Your task to perform on an android device: View the shopping cart on ebay.com. Search for "beats solo 3" on ebay.com, select the first entry, add it to the cart, then select checkout. Image 0: 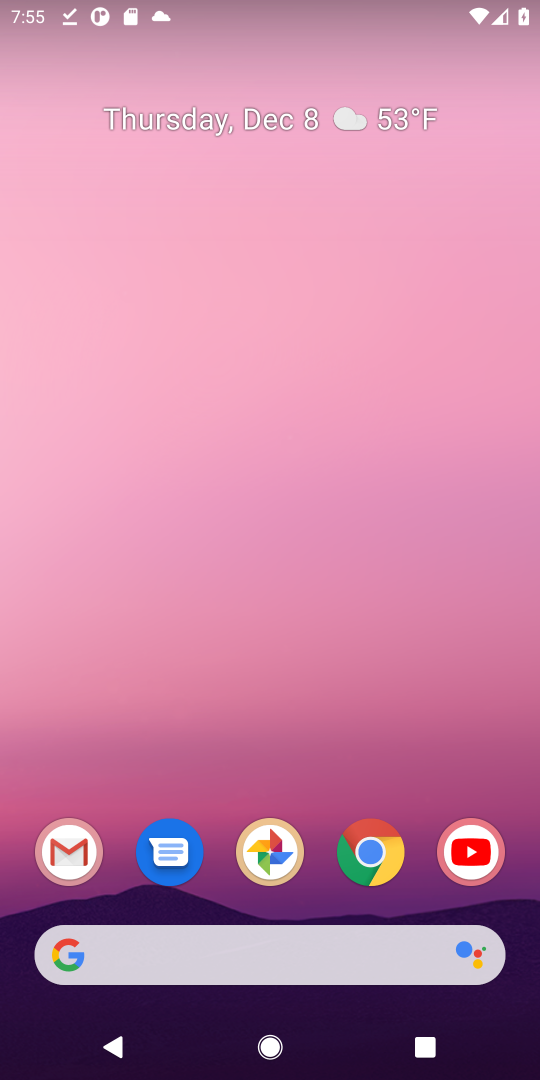
Step 0: click (356, 959)
Your task to perform on an android device: View the shopping cart on ebay.com. Search for "beats solo 3" on ebay.com, select the first entry, add it to the cart, then select checkout. Image 1: 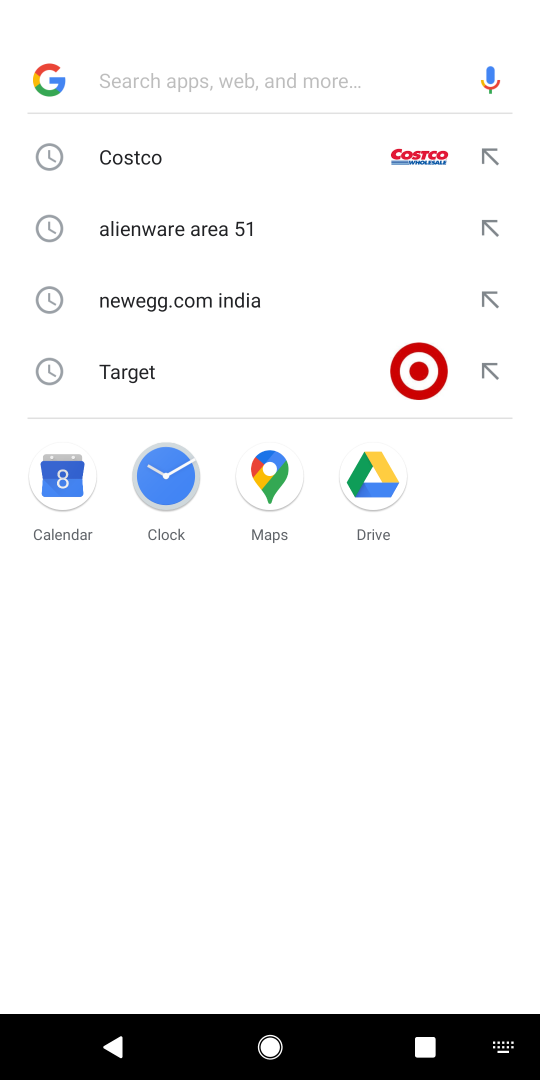
Step 1: type "ebay.com"
Your task to perform on an android device: View the shopping cart on ebay.com. Search for "beats solo 3" on ebay.com, select the first entry, add it to the cart, then select checkout. Image 2: 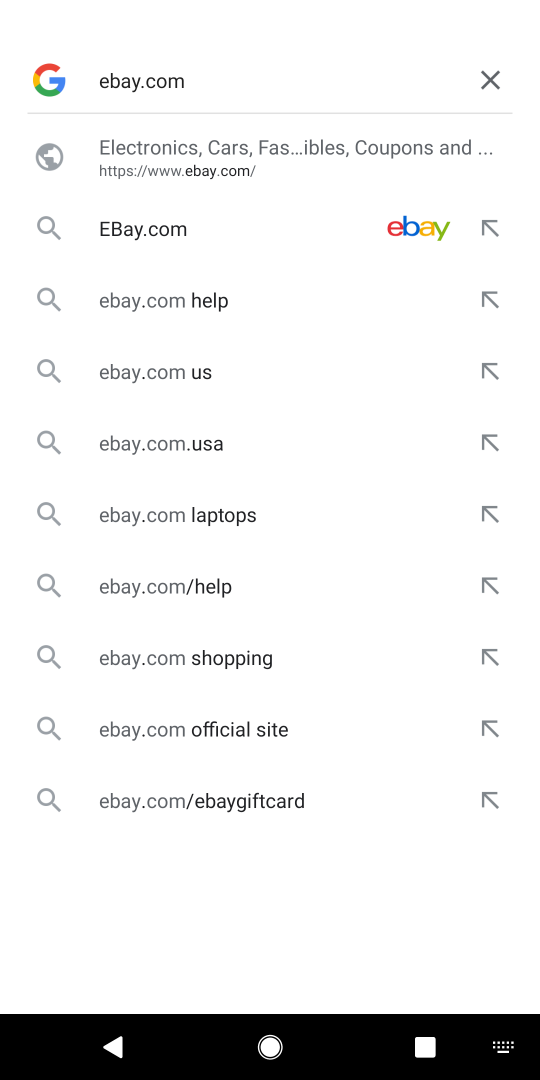
Step 2: click (226, 146)
Your task to perform on an android device: View the shopping cart on ebay.com. Search for "beats solo 3" on ebay.com, select the first entry, add it to the cart, then select checkout. Image 3: 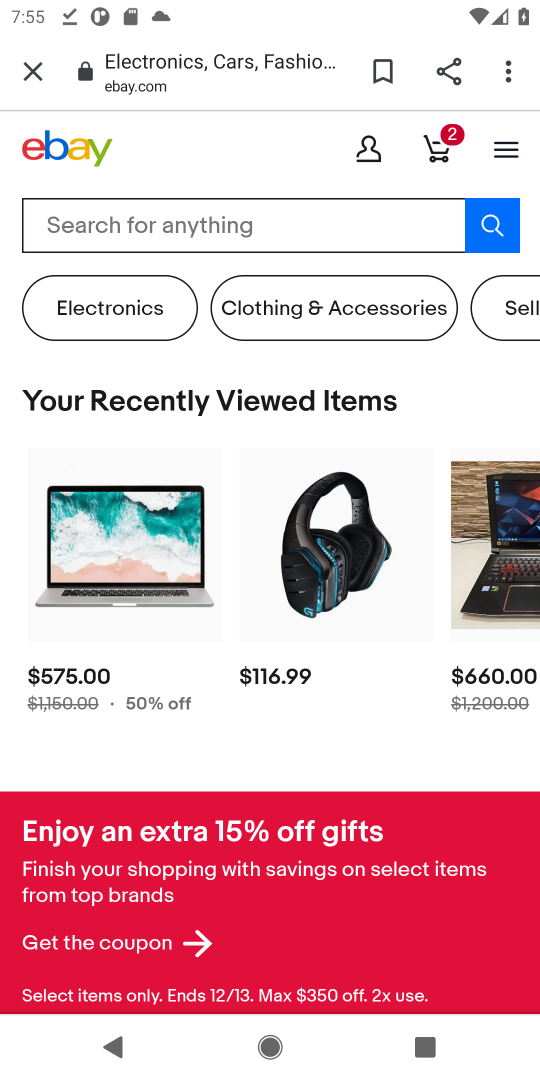
Step 3: click (297, 220)
Your task to perform on an android device: View the shopping cart on ebay.com. Search for "beats solo 3" on ebay.com, select the first entry, add it to the cart, then select checkout. Image 4: 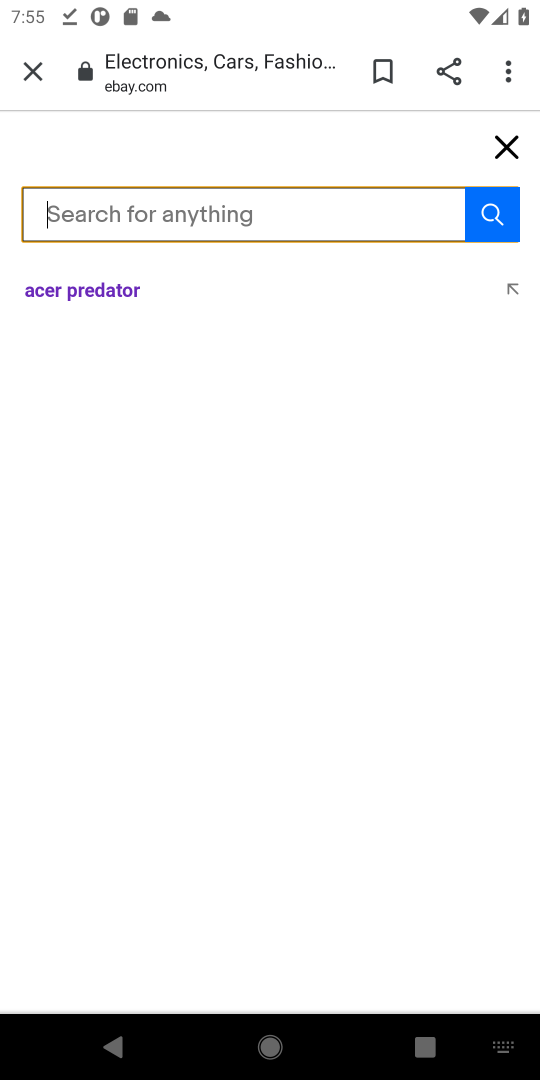
Step 4: type "beat solo 3"
Your task to perform on an android device: View the shopping cart on ebay.com. Search for "beats solo 3" on ebay.com, select the first entry, add it to the cart, then select checkout. Image 5: 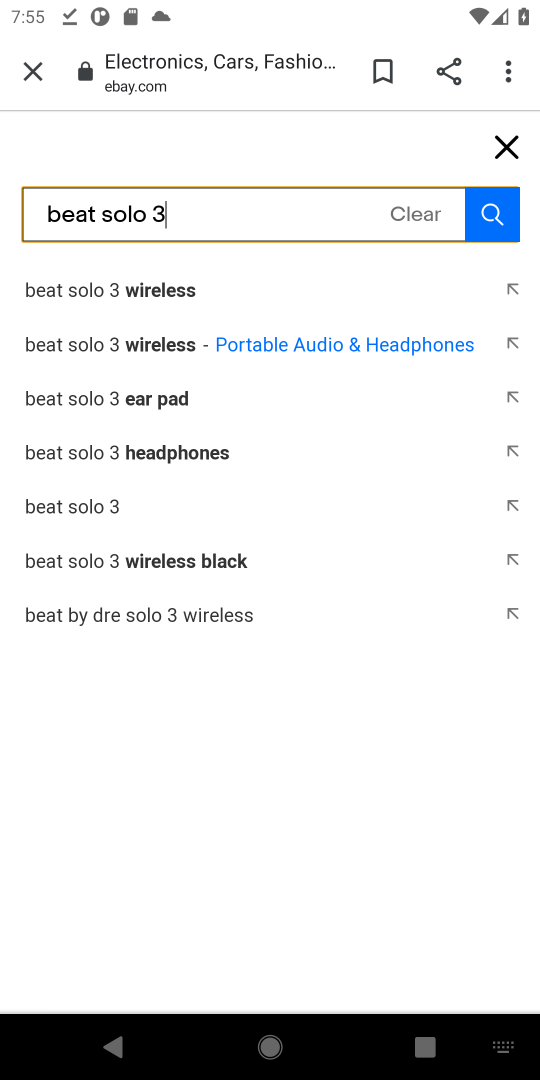
Step 5: click (496, 213)
Your task to perform on an android device: View the shopping cart on ebay.com. Search for "beats solo 3" on ebay.com, select the first entry, add it to the cart, then select checkout. Image 6: 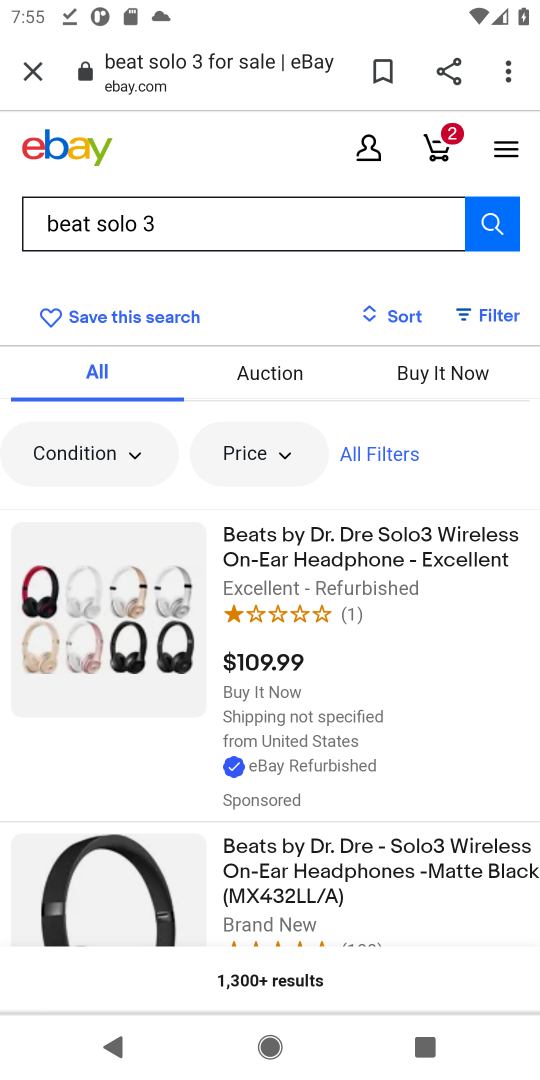
Step 6: click (330, 562)
Your task to perform on an android device: View the shopping cart on ebay.com. Search for "beats solo 3" on ebay.com, select the first entry, add it to the cart, then select checkout. Image 7: 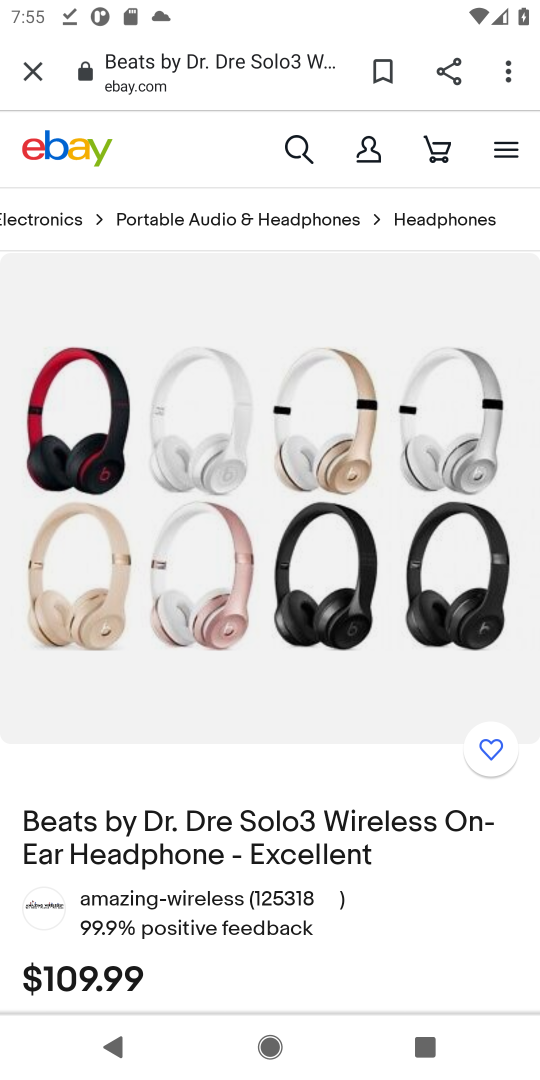
Step 7: drag from (402, 824) to (402, 361)
Your task to perform on an android device: View the shopping cart on ebay.com. Search for "beats solo 3" on ebay.com, select the first entry, add it to the cart, then select checkout. Image 8: 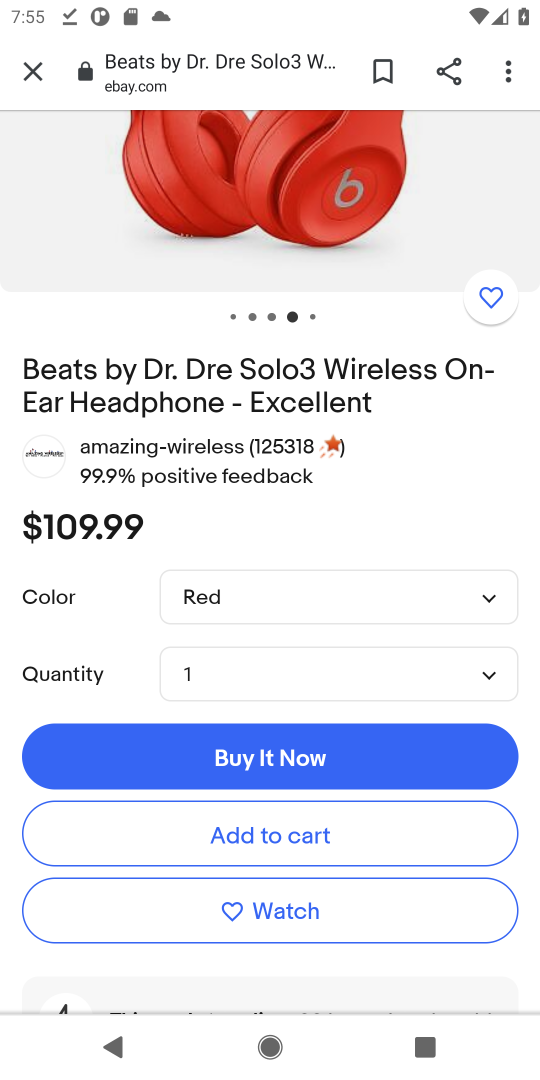
Step 8: drag from (408, 917) to (408, 798)
Your task to perform on an android device: View the shopping cart on ebay.com. Search for "beats solo 3" on ebay.com, select the first entry, add it to the cart, then select checkout. Image 9: 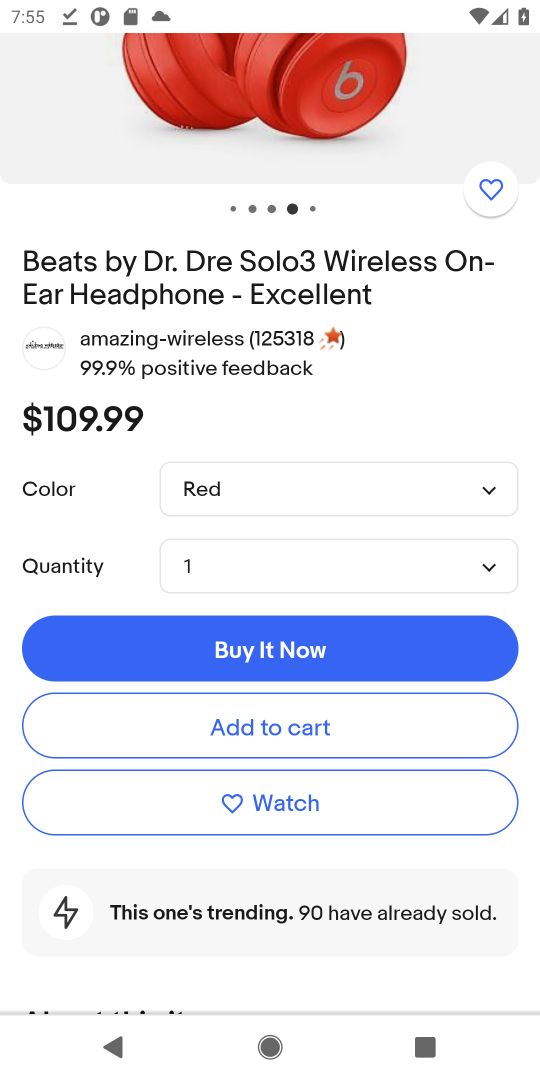
Step 9: click (320, 736)
Your task to perform on an android device: View the shopping cart on ebay.com. Search for "beats solo 3" on ebay.com, select the first entry, add it to the cart, then select checkout. Image 10: 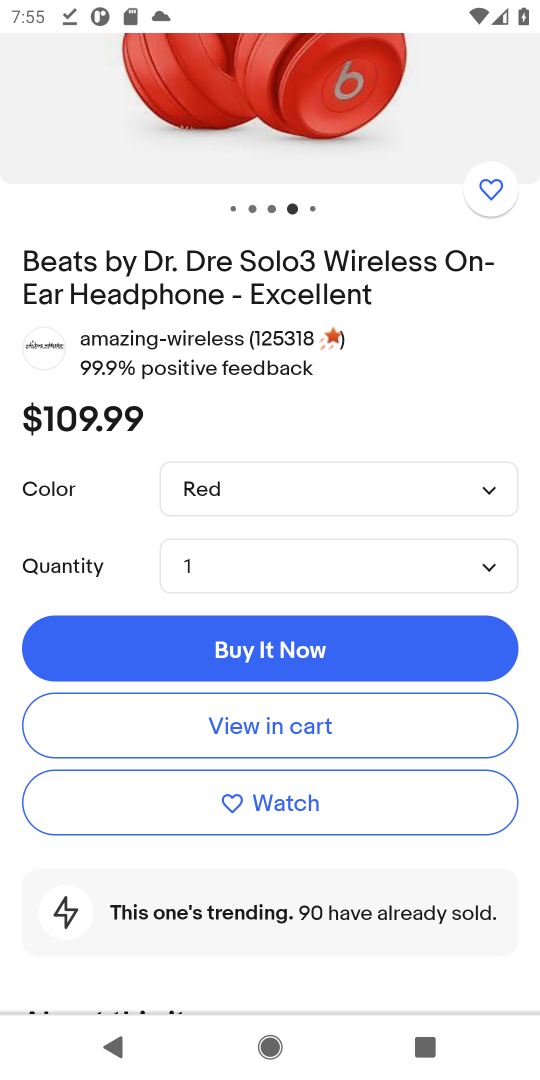
Step 10: task complete